Your task to perform on an android device: remove spam from my inbox in the gmail app Image 0: 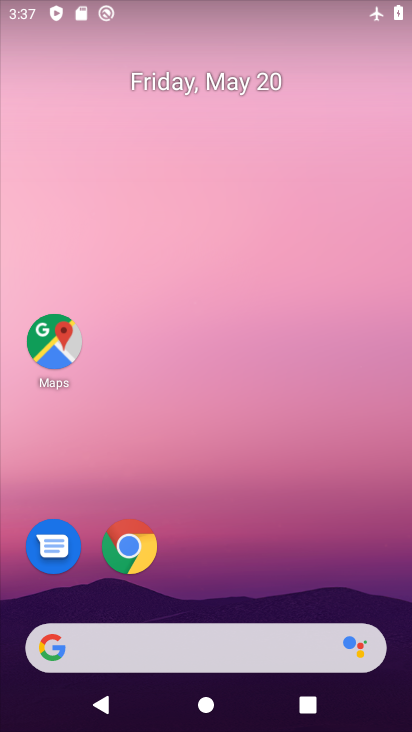
Step 0: drag from (266, 568) to (338, 151)
Your task to perform on an android device: remove spam from my inbox in the gmail app Image 1: 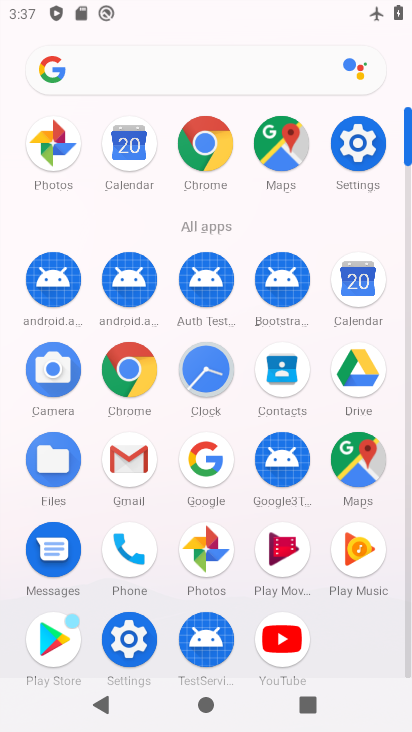
Step 1: click (138, 467)
Your task to perform on an android device: remove spam from my inbox in the gmail app Image 2: 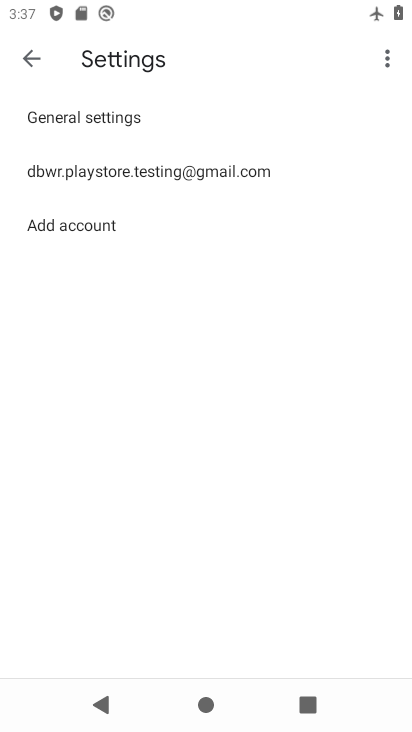
Step 2: click (28, 52)
Your task to perform on an android device: remove spam from my inbox in the gmail app Image 3: 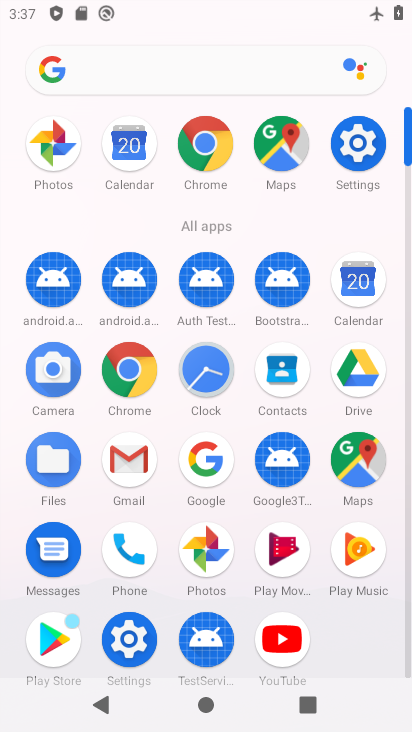
Step 3: click (142, 455)
Your task to perform on an android device: remove spam from my inbox in the gmail app Image 4: 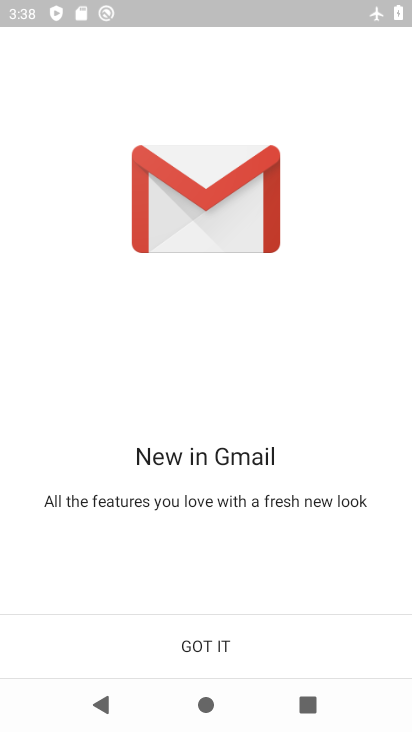
Step 4: click (243, 633)
Your task to perform on an android device: remove spam from my inbox in the gmail app Image 5: 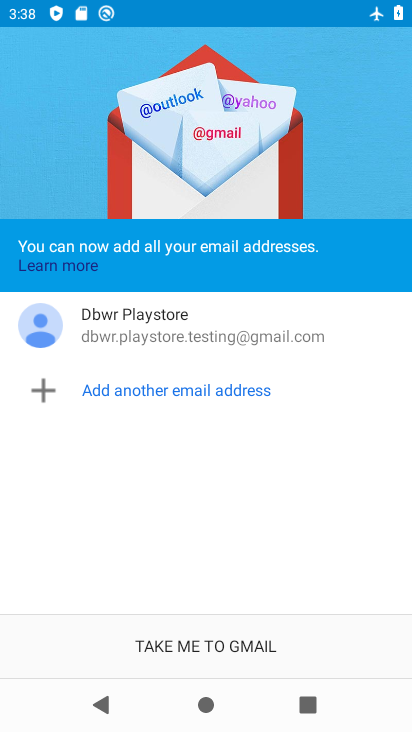
Step 5: click (246, 644)
Your task to perform on an android device: remove spam from my inbox in the gmail app Image 6: 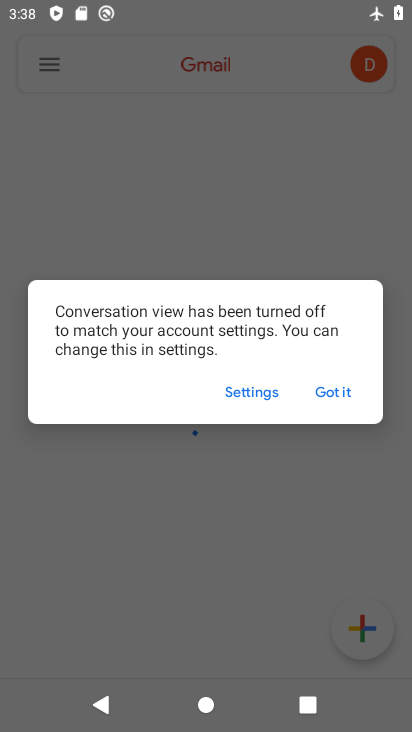
Step 6: click (351, 399)
Your task to perform on an android device: remove spam from my inbox in the gmail app Image 7: 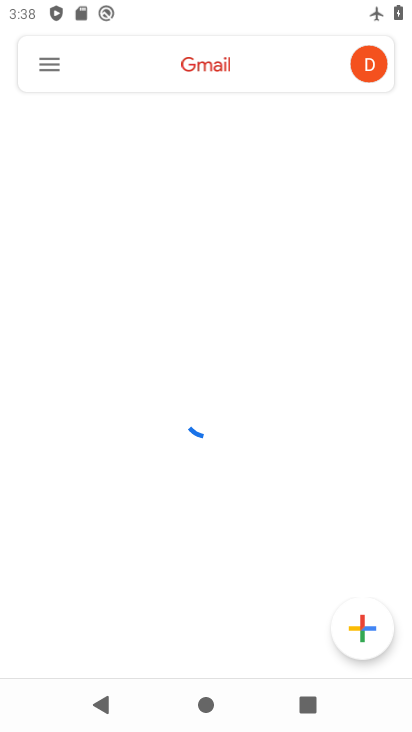
Step 7: click (41, 68)
Your task to perform on an android device: remove spam from my inbox in the gmail app Image 8: 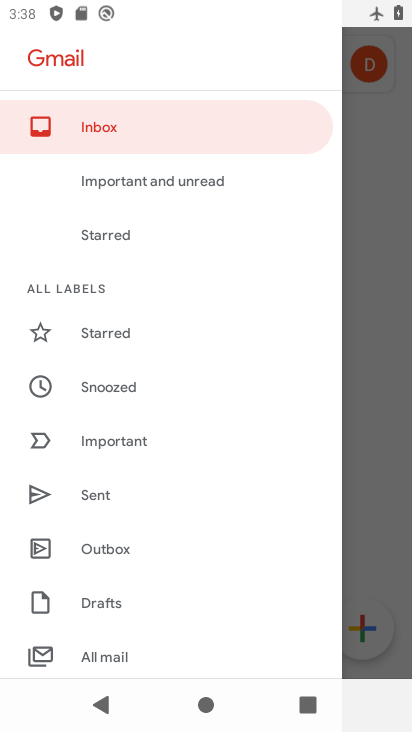
Step 8: drag from (213, 632) to (238, 376)
Your task to perform on an android device: remove spam from my inbox in the gmail app Image 9: 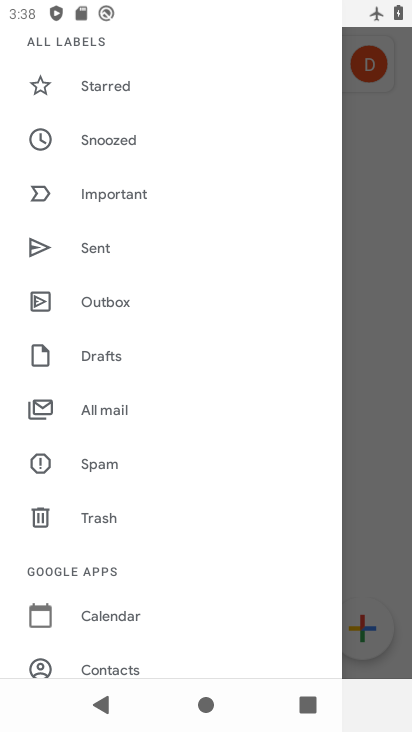
Step 9: drag from (158, 280) to (162, 563)
Your task to perform on an android device: remove spam from my inbox in the gmail app Image 10: 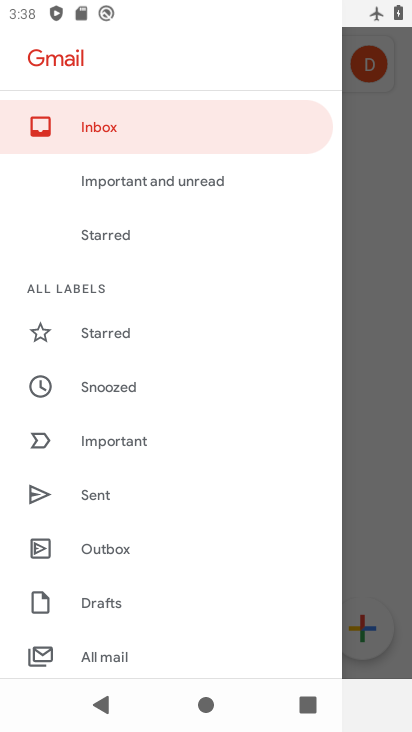
Step 10: click (143, 124)
Your task to perform on an android device: remove spam from my inbox in the gmail app Image 11: 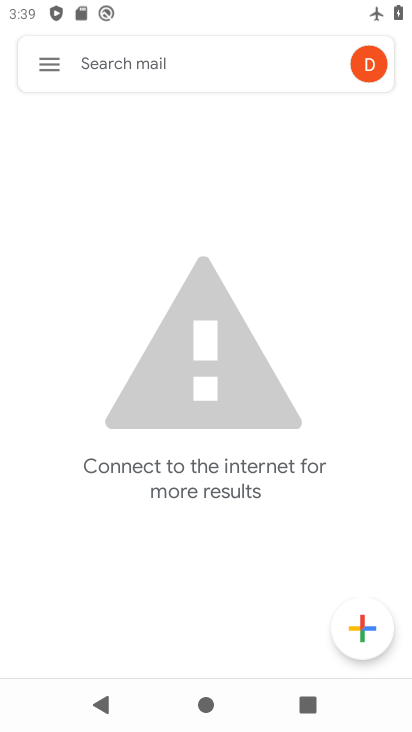
Step 11: task complete